Your task to perform on an android device: uninstall "Adobe Acrobat Reader" Image 0: 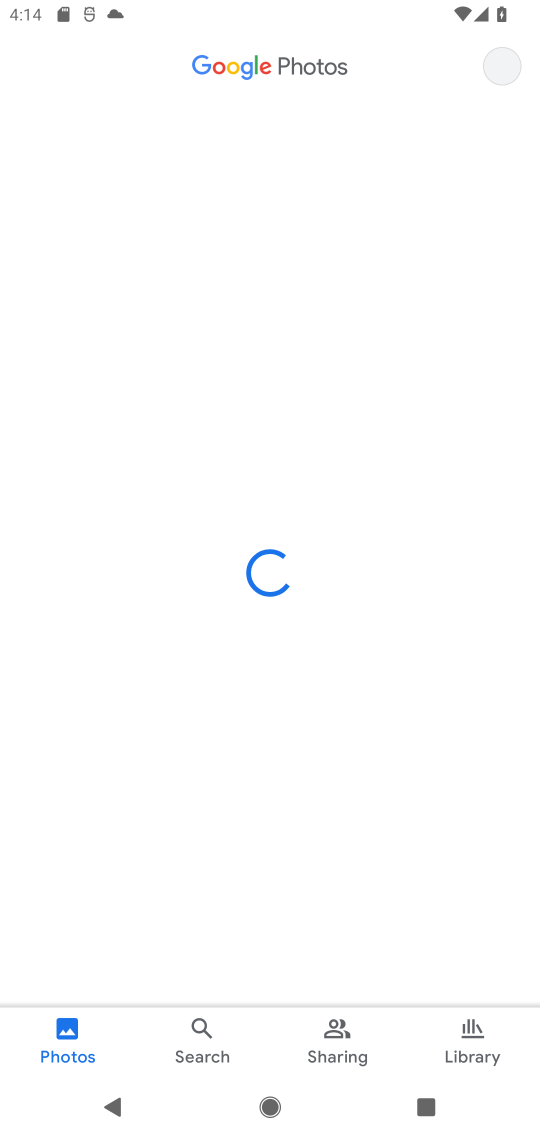
Step 0: press home button
Your task to perform on an android device: uninstall "Adobe Acrobat Reader" Image 1: 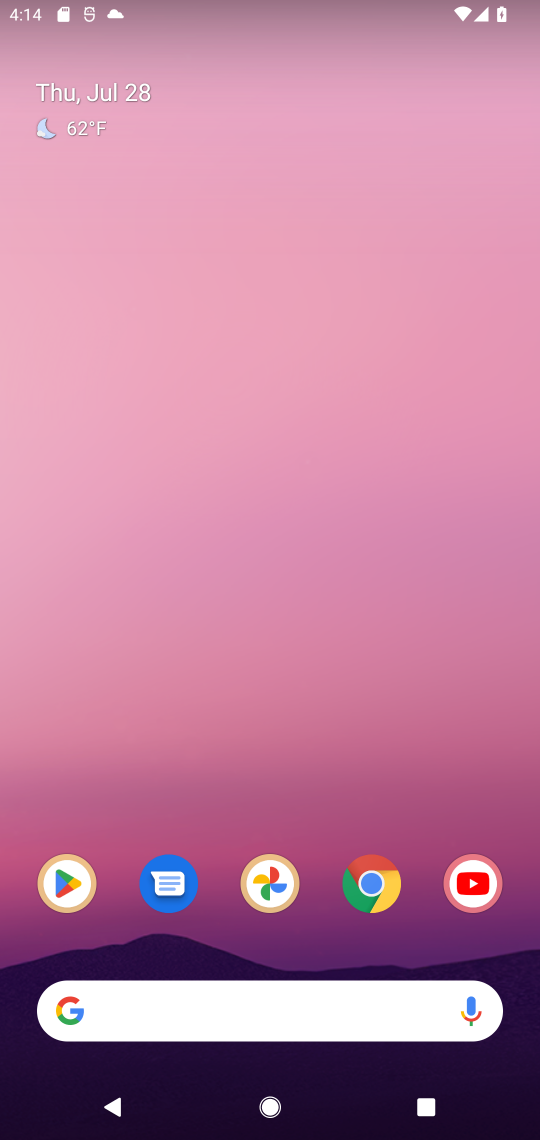
Step 1: click (43, 891)
Your task to perform on an android device: uninstall "Adobe Acrobat Reader" Image 2: 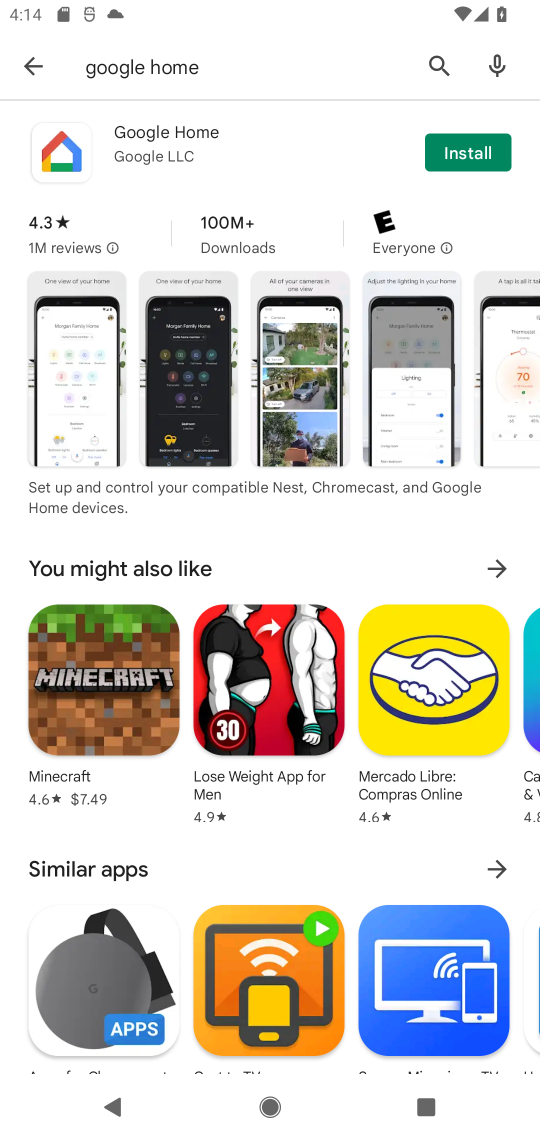
Step 2: click (30, 56)
Your task to perform on an android device: uninstall "Adobe Acrobat Reader" Image 3: 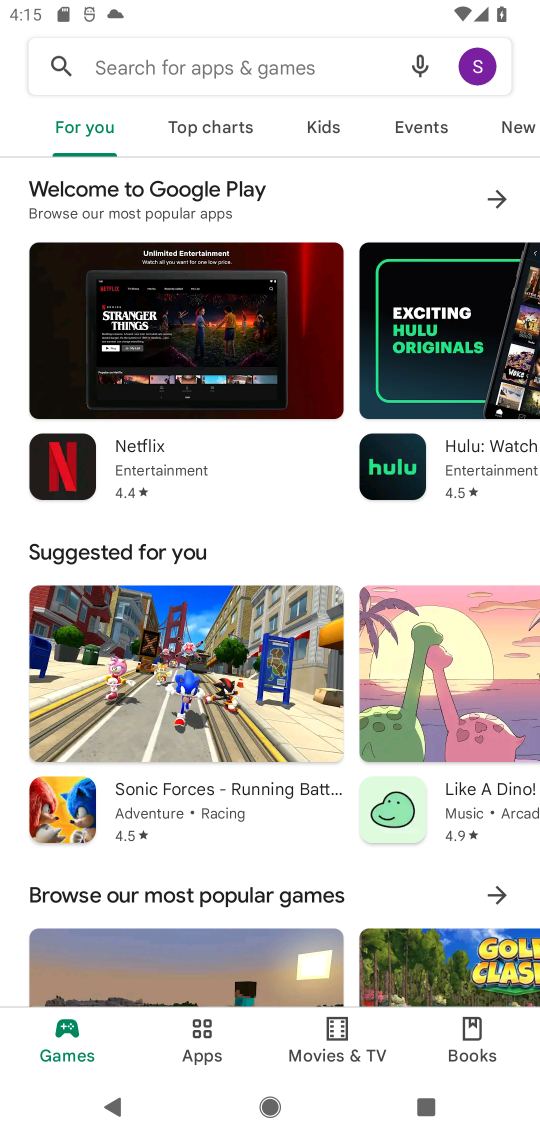
Step 3: click (188, 68)
Your task to perform on an android device: uninstall "Adobe Acrobat Reader" Image 4: 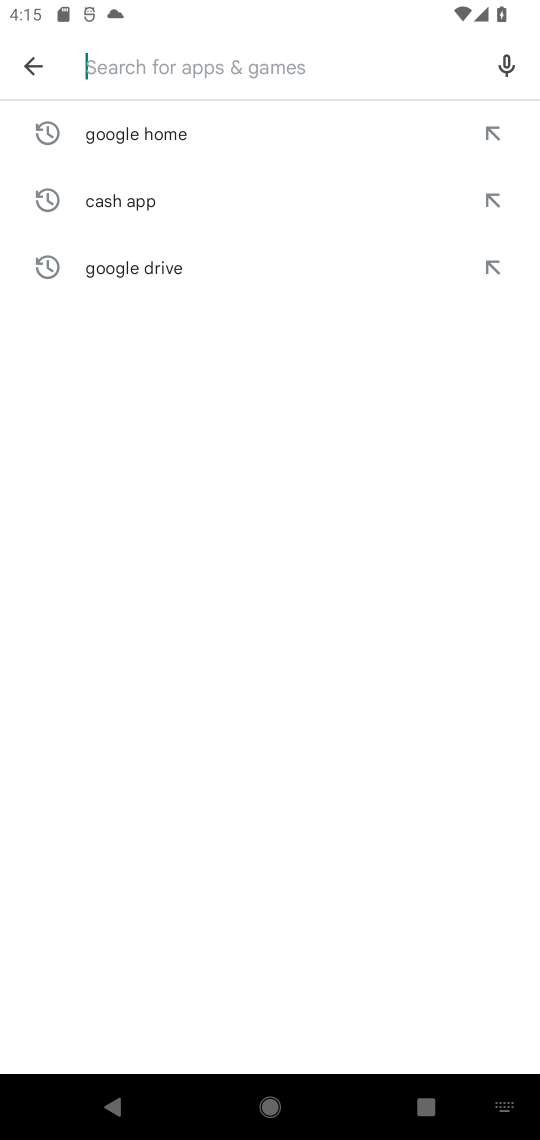
Step 4: type "Adobe Acrobat Reader"
Your task to perform on an android device: uninstall "Adobe Acrobat Reader" Image 5: 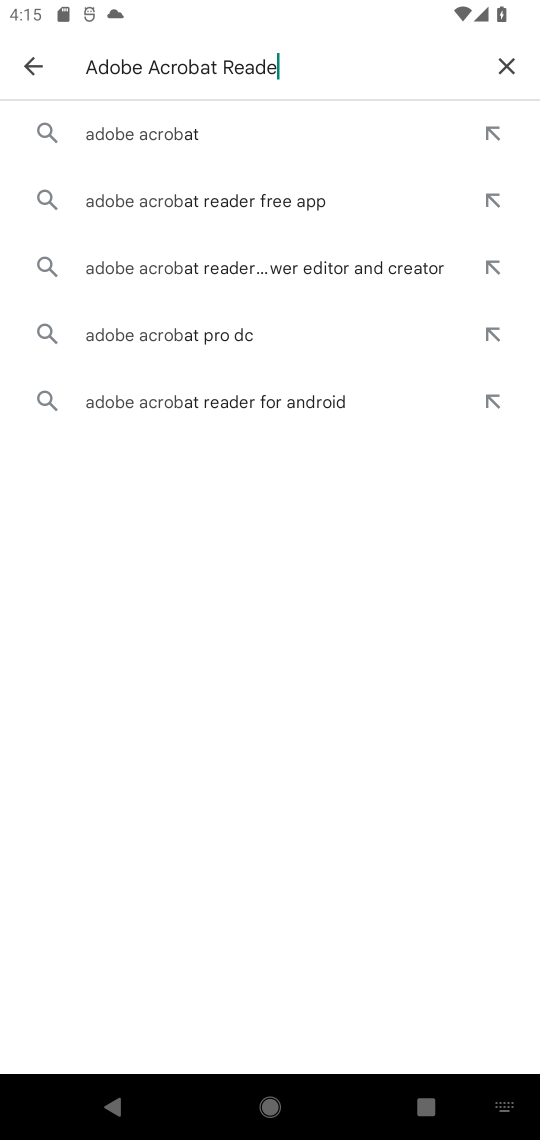
Step 5: type ""
Your task to perform on an android device: uninstall "Adobe Acrobat Reader" Image 6: 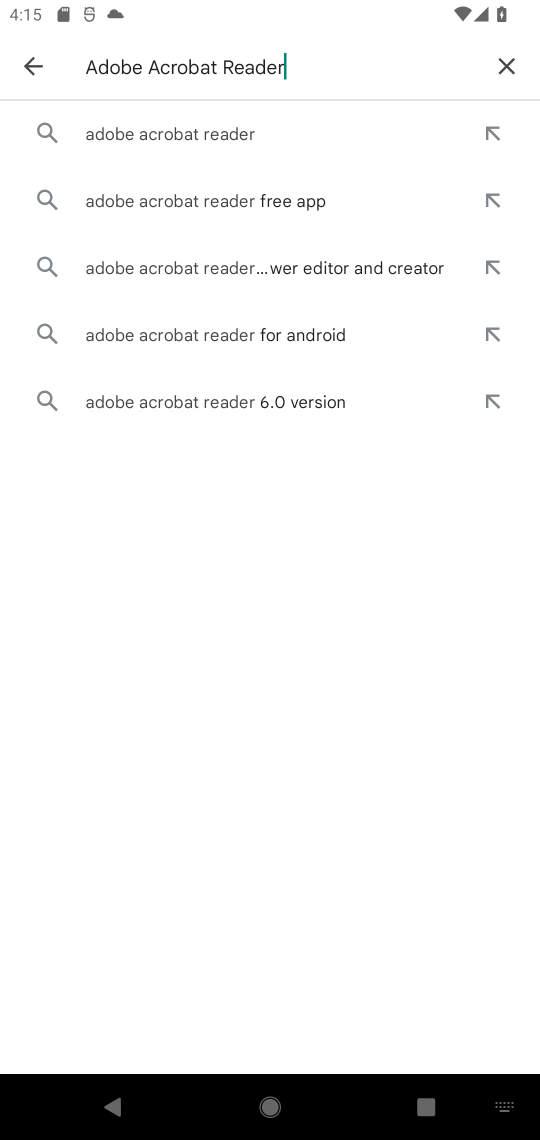
Step 6: click (154, 131)
Your task to perform on an android device: uninstall "Adobe Acrobat Reader" Image 7: 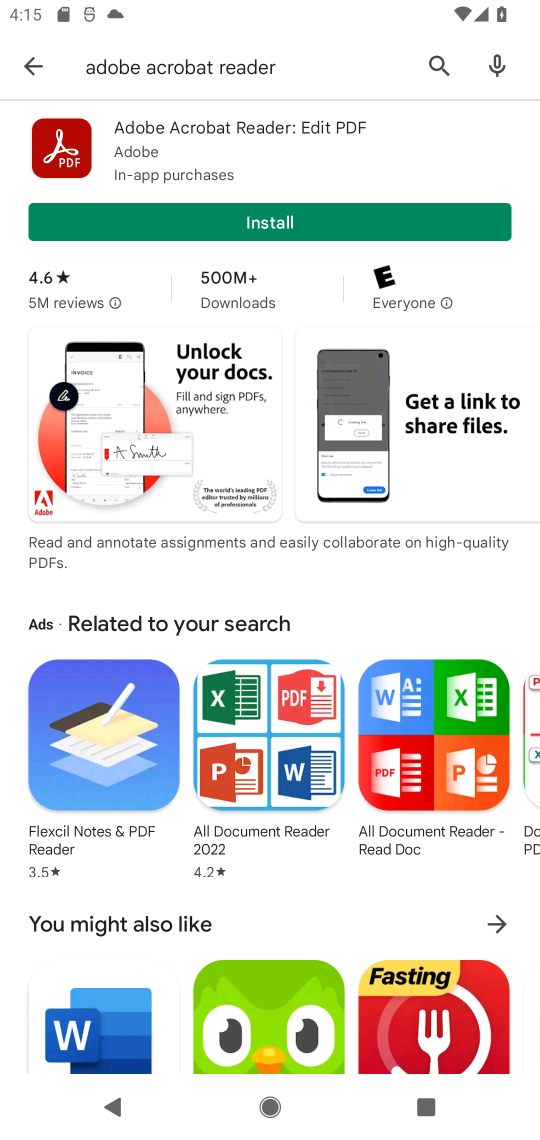
Step 7: task complete